Your task to perform on an android device: read, delete, or share a saved page in the chrome app Image 0: 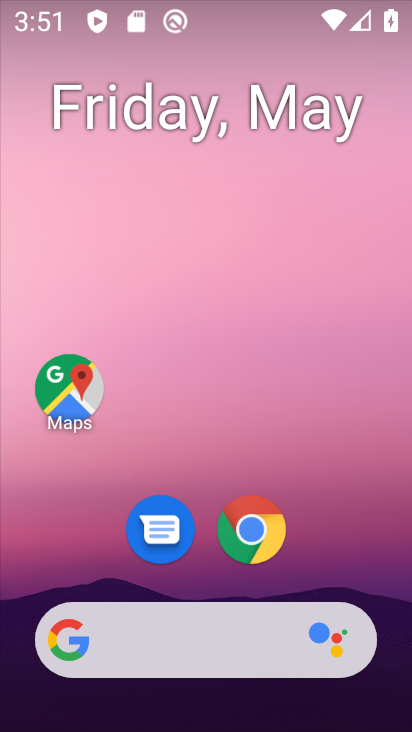
Step 0: click (260, 529)
Your task to perform on an android device: read, delete, or share a saved page in the chrome app Image 1: 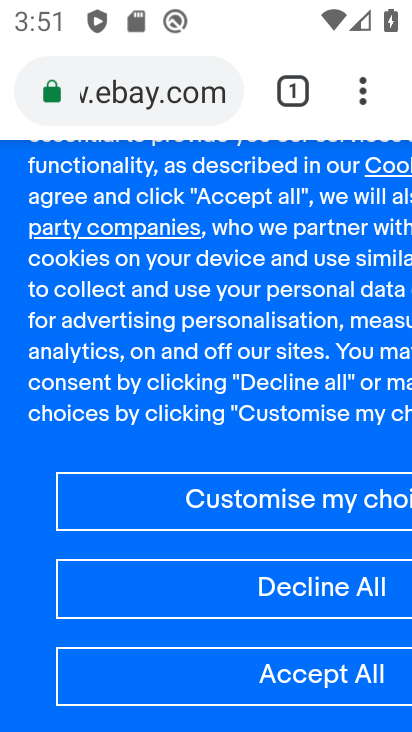
Step 1: click (361, 85)
Your task to perform on an android device: read, delete, or share a saved page in the chrome app Image 2: 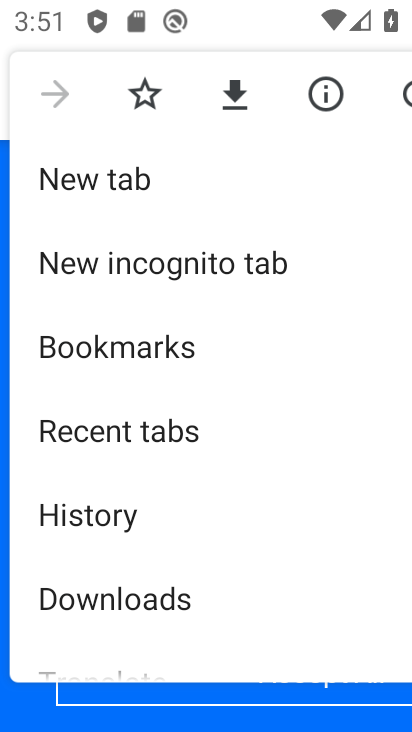
Step 2: click (100, 605)
Your task to perform on an android device: read, delete, or share a saved page in the chrome app Image 3: 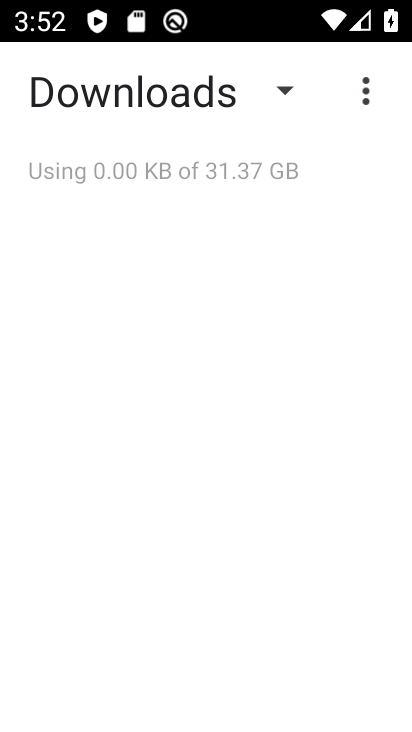
Step 3: click (250, 98)
Your task to perform on an android device: read, delete, or share a saved page in the chrome app Image 4: 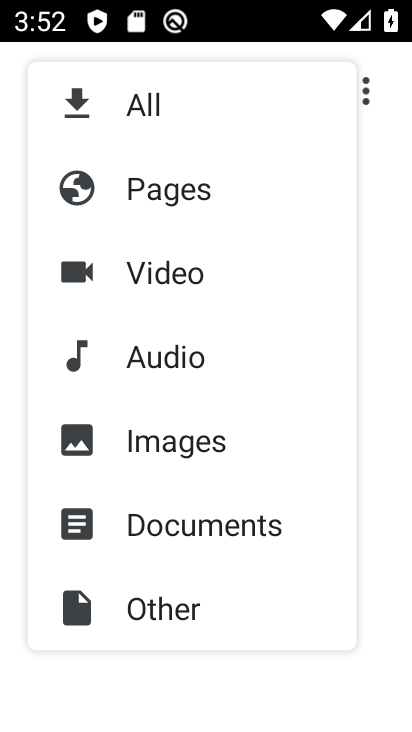
Step 4: click (181, 187)
Your task to perform on an android device: read, delete, or share a saved page in the chrome app Image 5: 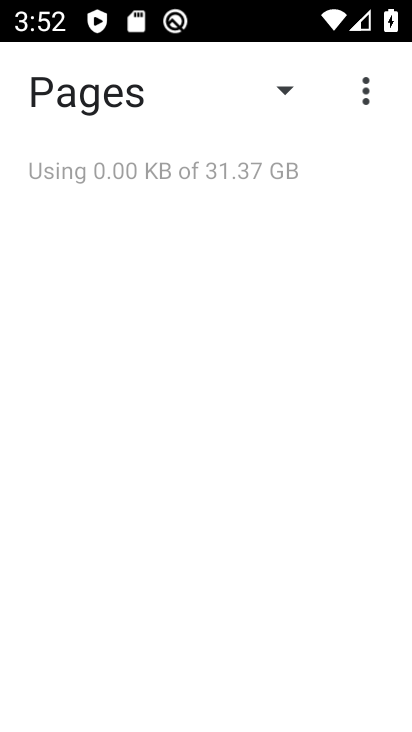
Step 5: task complete